Your task to perform on an android device: Open CNN.com Image 0: 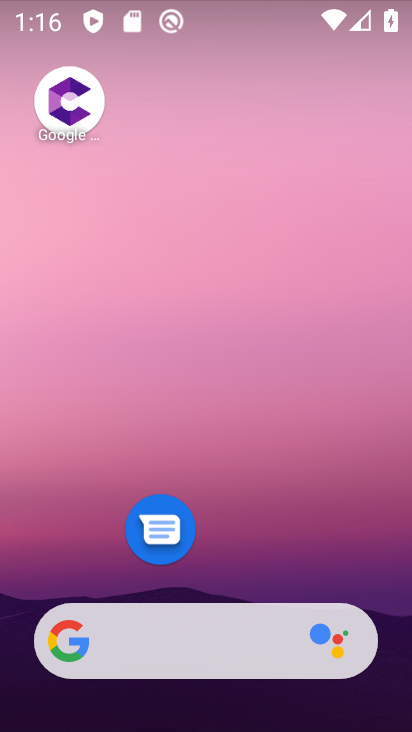
Step 0: click (177, 623)
Your task to perform on an android device: Open CNN.com Image 1: 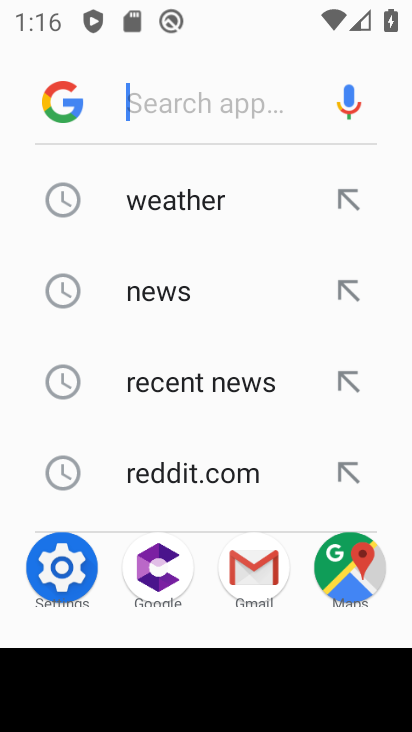
Step 1: type "cnn.com"
Your task to perform on an android device: Open CNN.com Image 2: 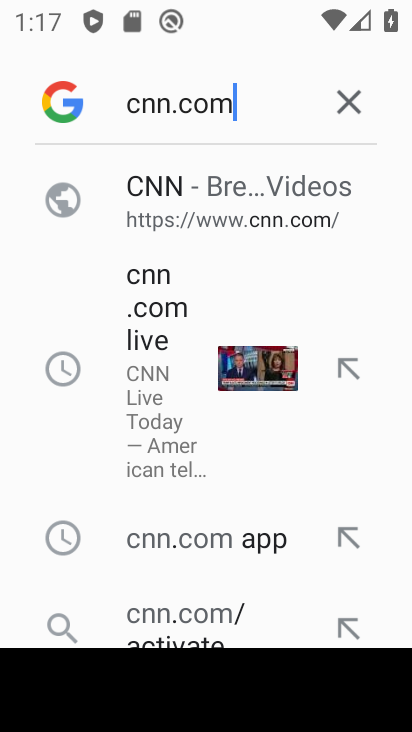
Step 2: task complete